Your task to perform on an android device: Open Google Image 0: 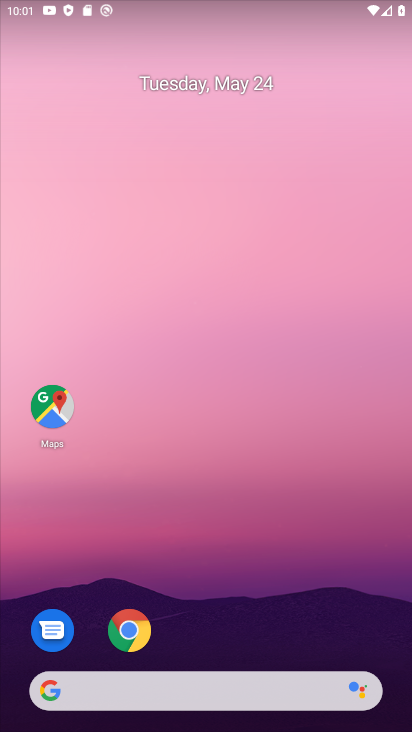
Step 0: drag from (233, 631) to (242, 62)
Your task to perform on an android device: Open Google Image 1: 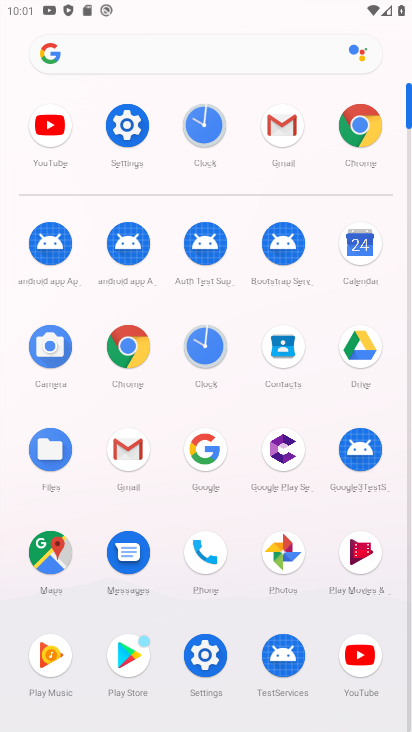
Step 1: click (203, 441)
Your task to perform on an android device: Open Google Image 2: 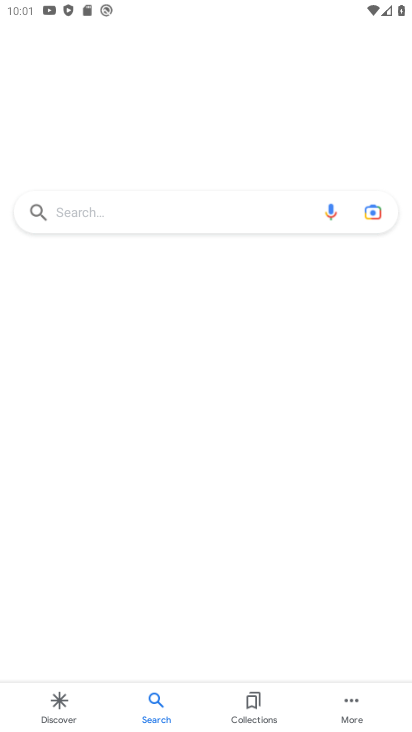
Step 2: task complete